Your task to perform on an android device: Go to wifi settings Image 0: 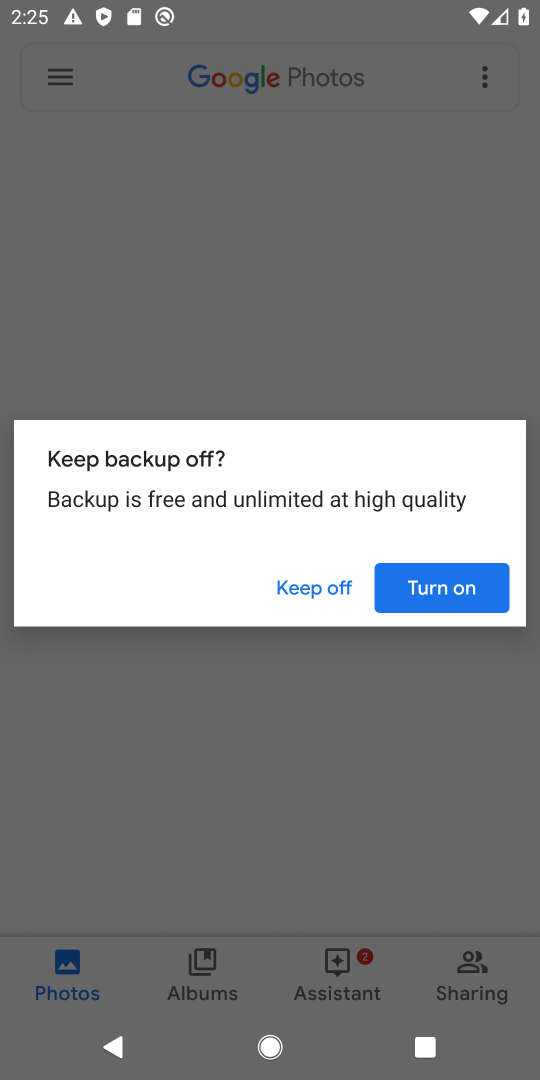
Step 0: press back button
Your task to perform on an android device: Go to wifi settings Image 1: 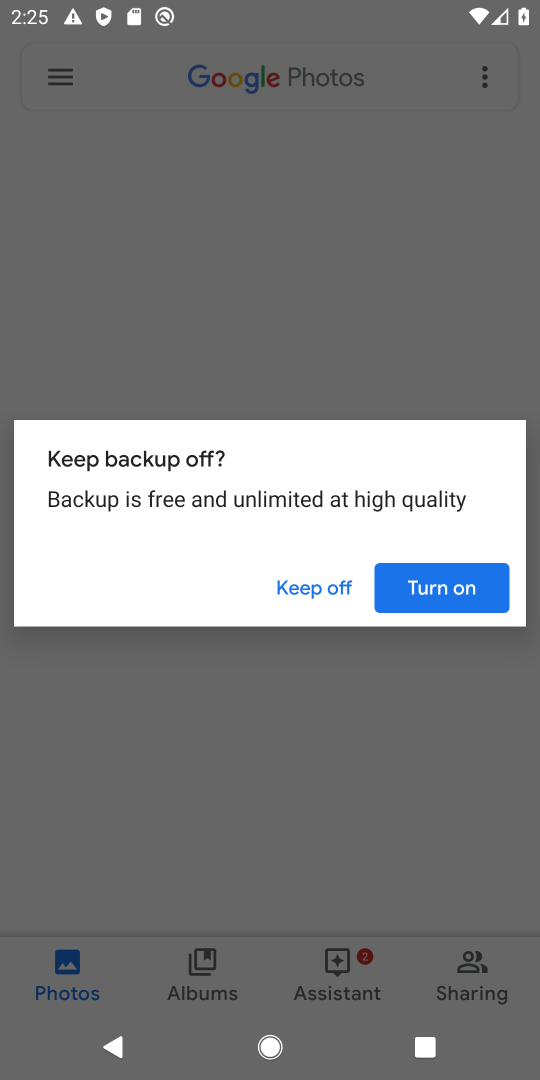
Step 1: press back button
Your task to perform on an android device: Go to wifi settings Image 2: 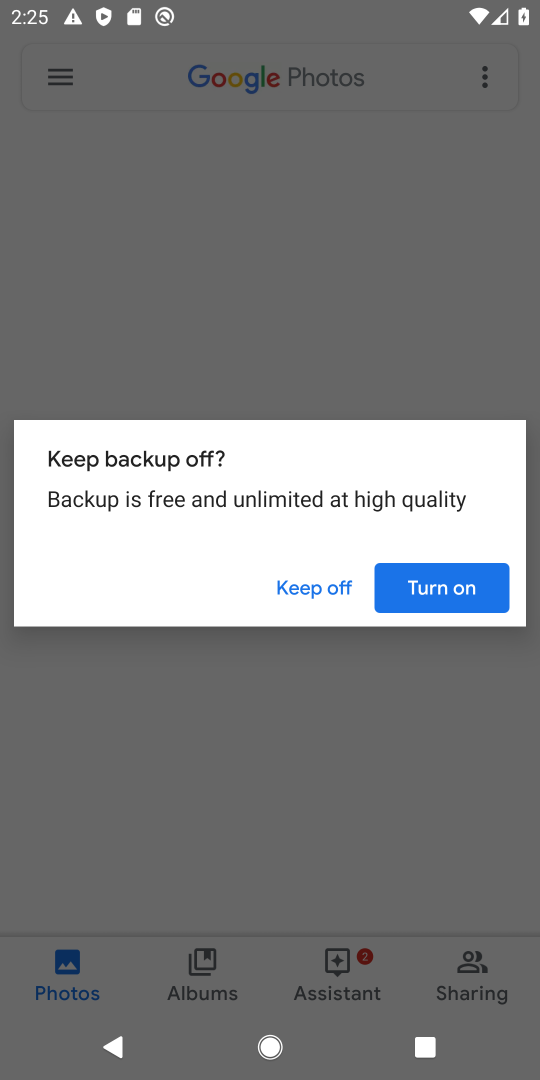
Step 2: press back button
Your task to perform on an android device: Go to wifi settings Image 3: 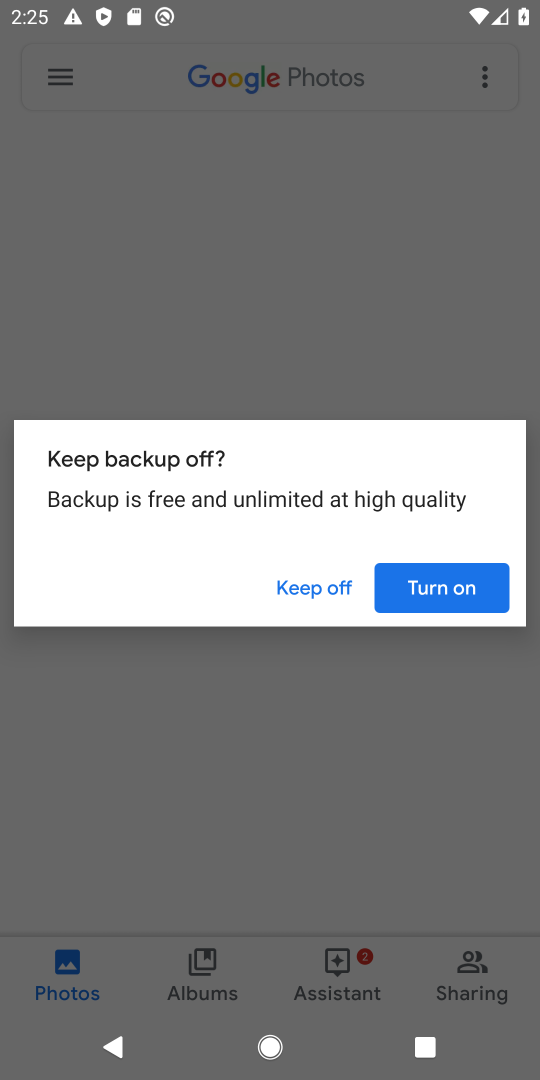
Step 3: press home button
Your task to perform on an android device: Go to wifi settings Image 4: 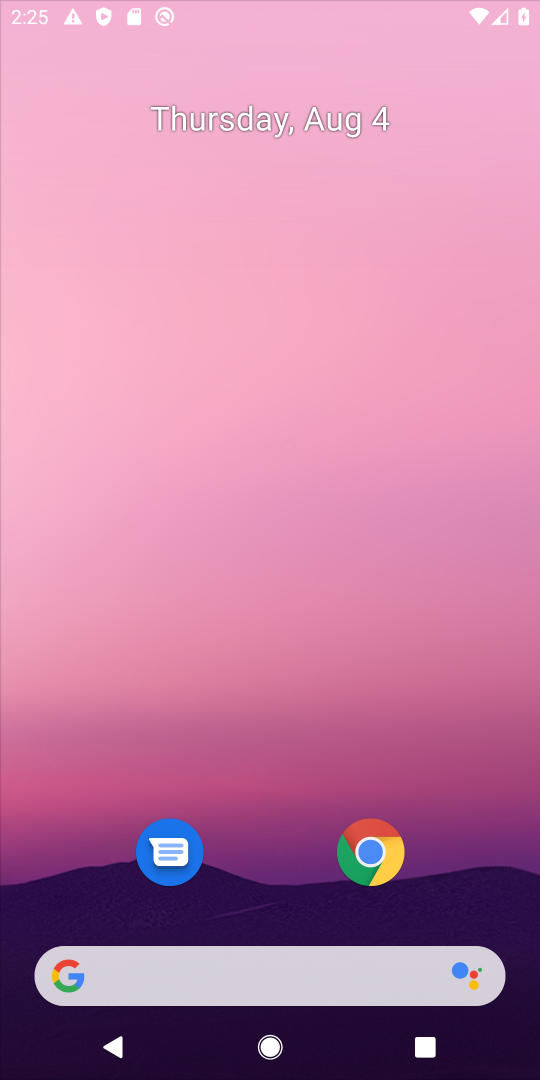
Step 4: drag from (190, 730) to (194, 849)
Your task to perform on an android device: Go to wifi settings Image 5: 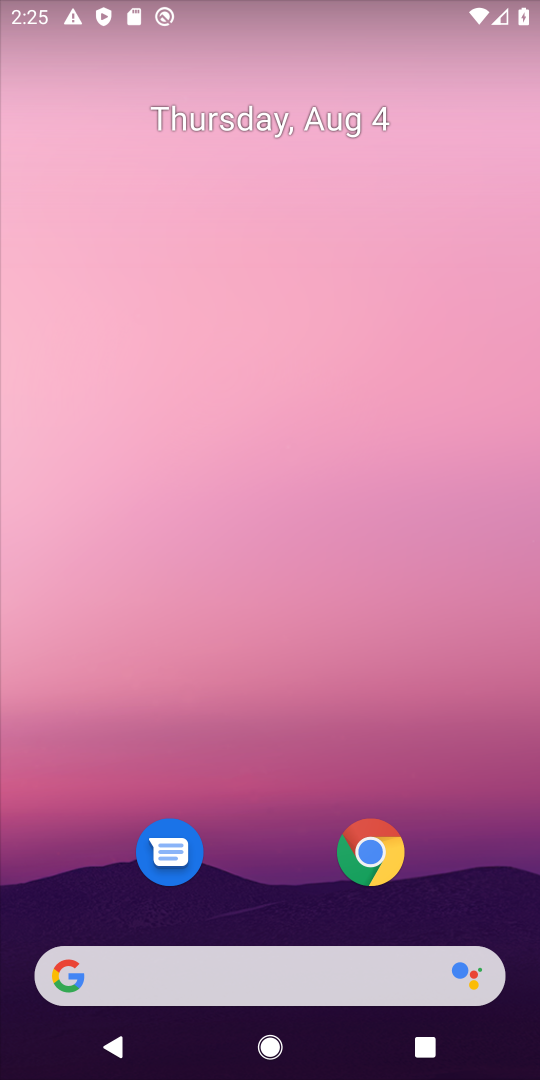
Step 5: drag from (67, 11) to (121, 746)
Your task to perform on an android device: Go to wifi settings Image 6: 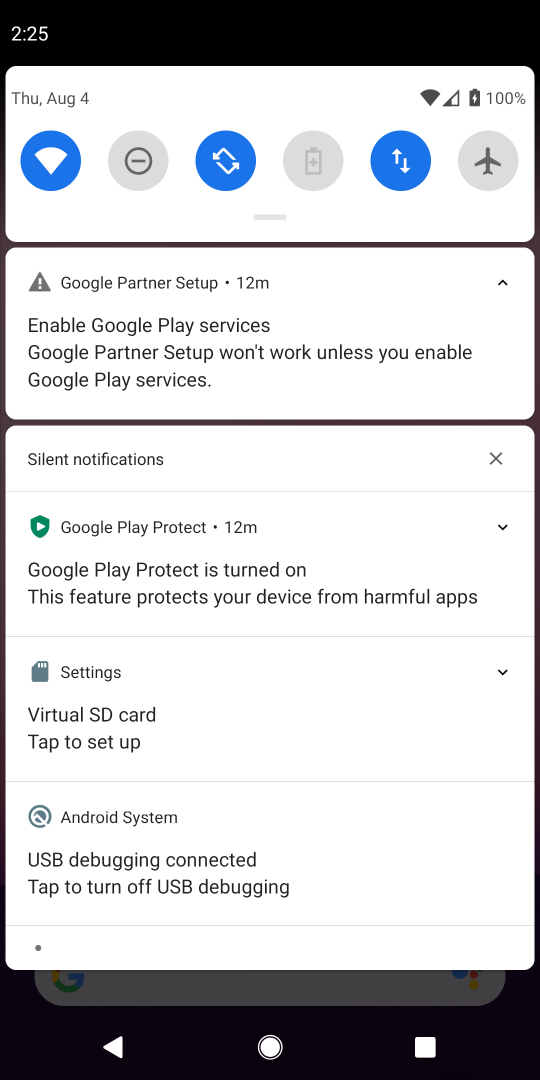
Step 6: click (53, 158)
Your task to perform on an android device: Go to wifi settings Image 7: 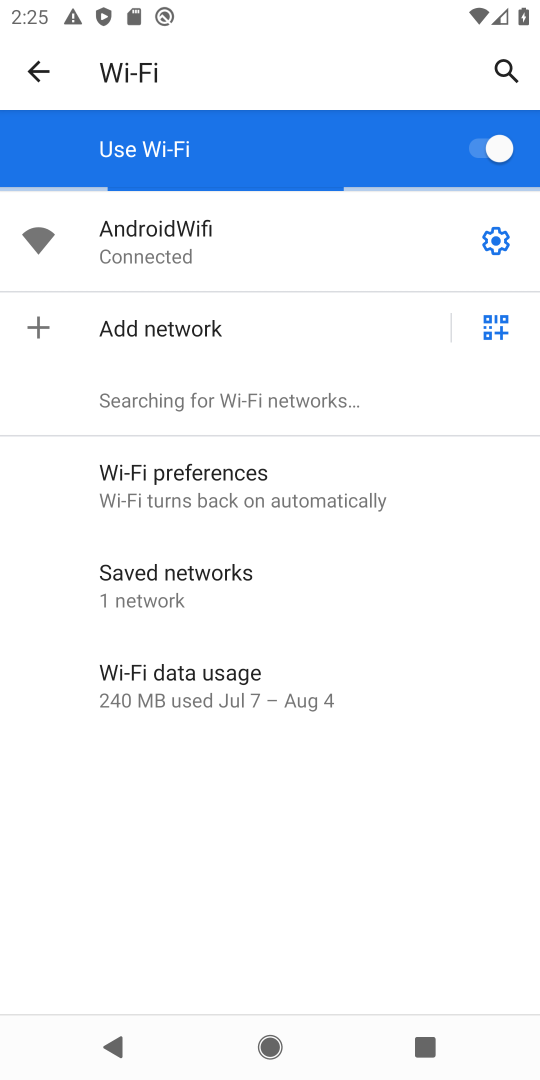
Step 7: task complete